Your task to perform on an android device: turn off priority inbox in the gmail app Image 0: 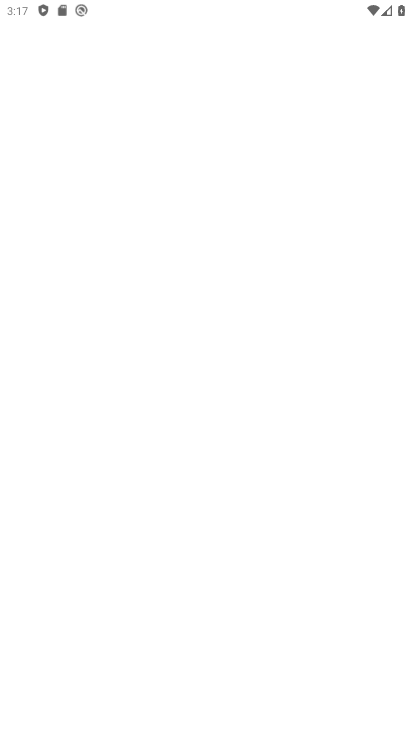
Step 0: click (240, 163)
Your task to perform on an android device: turn off priority inbox in the gmail app Image 1: 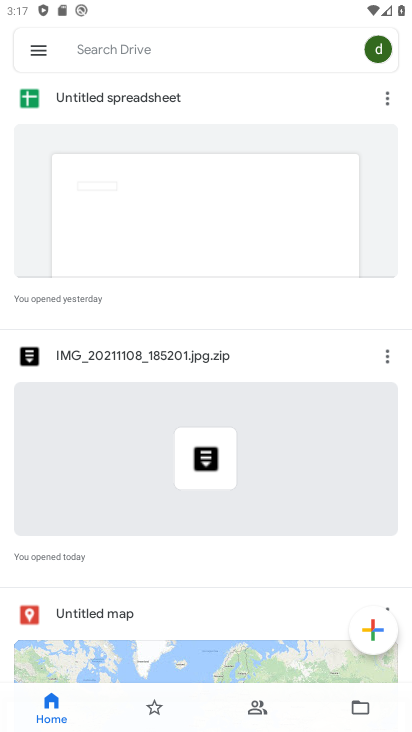
Step 1: press home button
Your task to perform on an android device: turn off priority inbox in the gmail app Image 2: 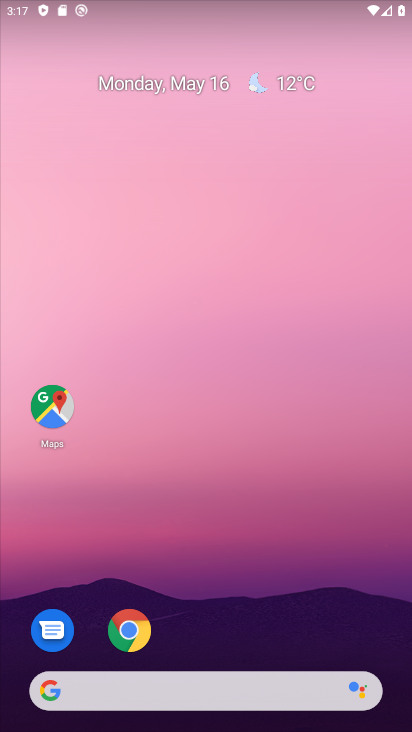
Step 2: drag from (207, 654) to (304, 50)
Your task to perform on an android device: turn off priority inbox in the gmail app Image 3: 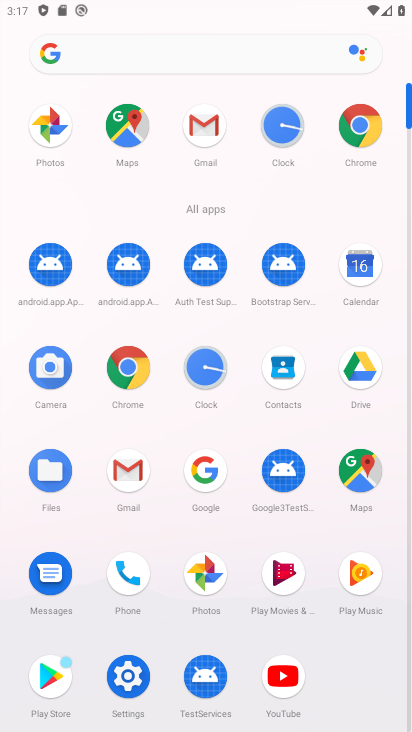
Step 3: click (124, 474)
Your task to perform on an android device: turn off priority inbox in the gmail app Image 4: 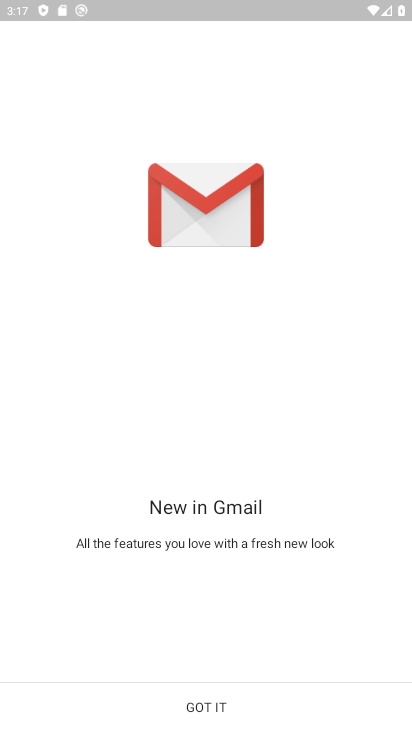
Step 4: click (253, 703)
Your task to perform on an android device: turn off priority inbox in the gmail app Image 5: 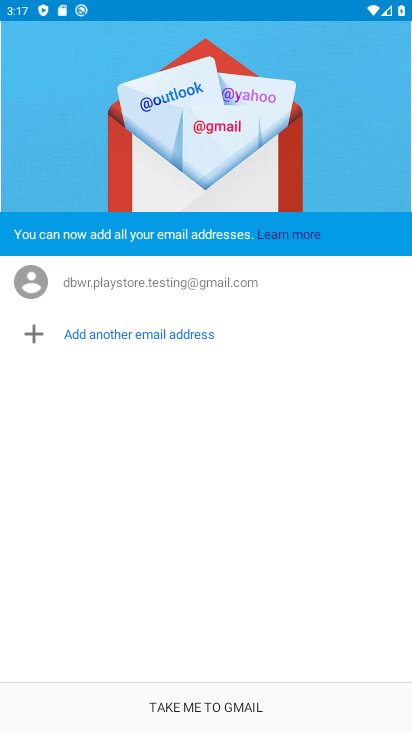
Step 5: click (253, 702)
Your task to perform on an android device: turn off priority inbox in the gmail app Image 6: 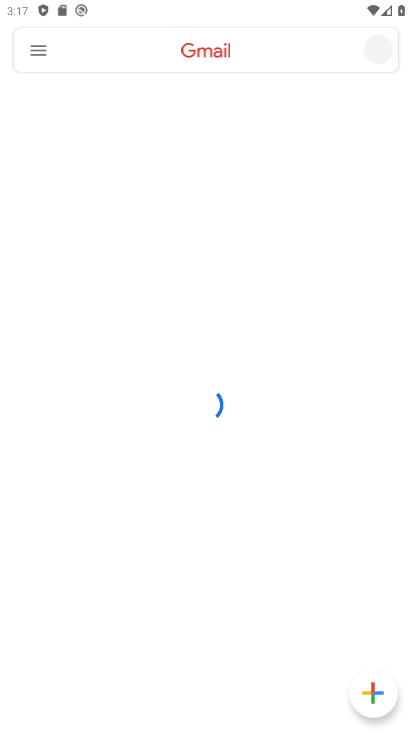
Step 6: click (32, 50)
Your task to perform on an android device: turn off priority inbox in the gmail app Image 7: 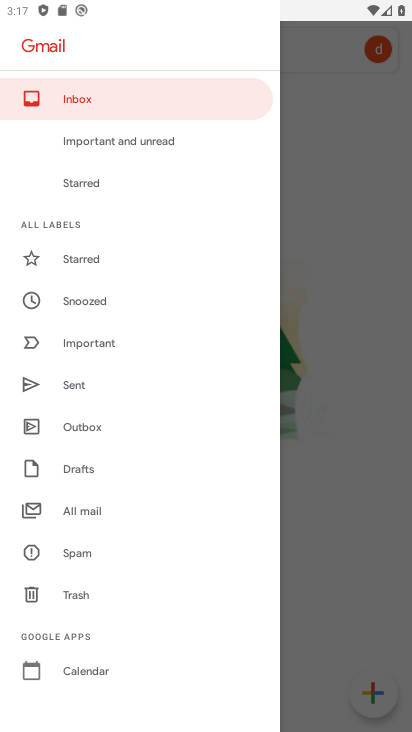
Step 7: drag from (92, 609) to (217, 252)
Your task to perform on an android device: turn off priority inbox in the gmail app Image 8: 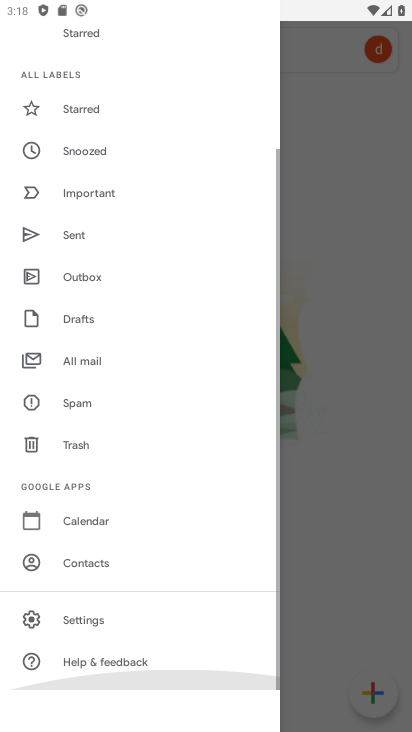
Step 8: click (119, 632)
Your task to perform on an android device: turn off priority inbox in the gmail app Image 9: 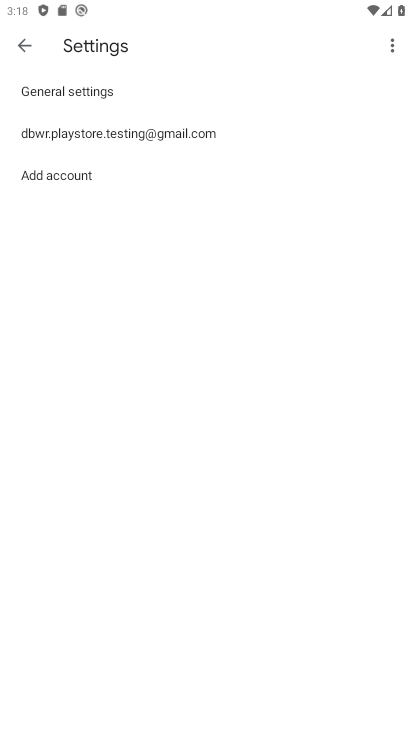
Step 9: click (181, 114)
Your task to perform on an android device: turn off priority inbox in the gmail app Image 10: 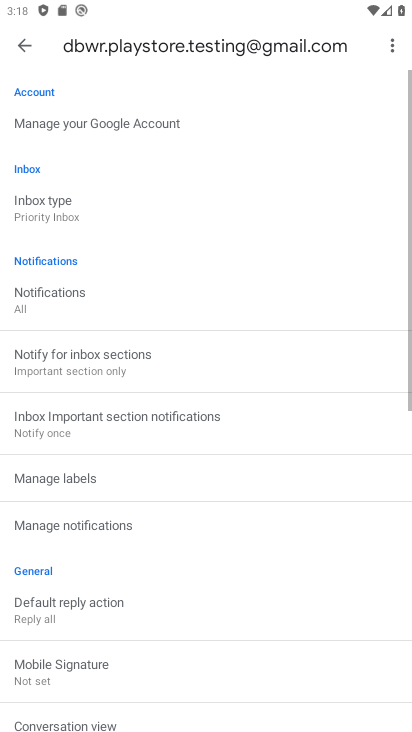
Step 10: click (146, 212)
Your task to perform on an android device: turn off priority inbox in the gmail app Image 11: 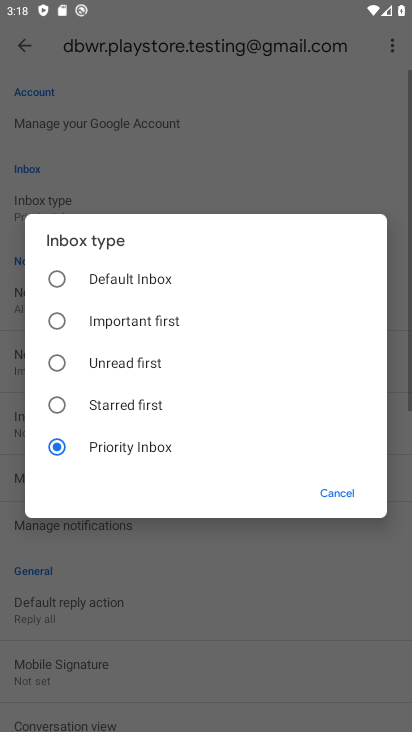
Step 11: click (170, 278)
Your task to perform on an android device: turn off priority inbox in the gmail app Image 12: 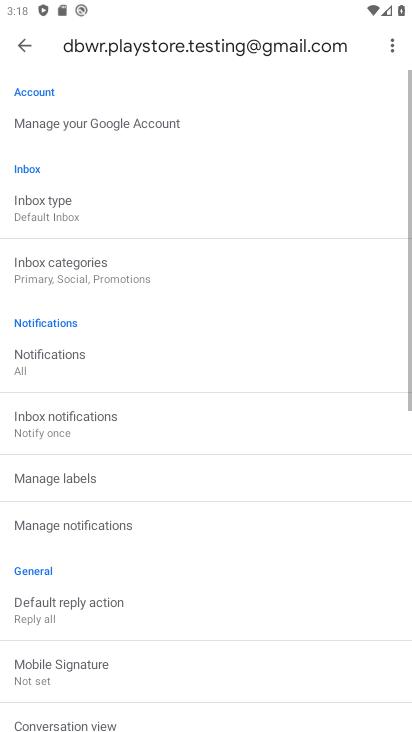
Step 12: task complete